Your task to perform on an android device: turn on location history Image 0: 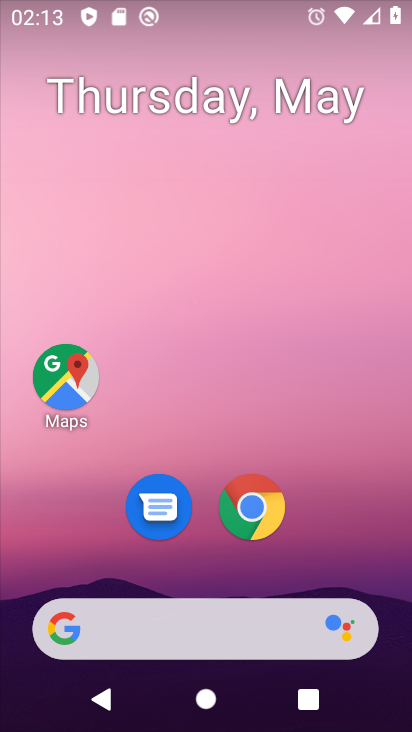
Step 0: drag from (308, 546) to (307, 132)
Your task to perform on an android device: turn on location history Image 1: 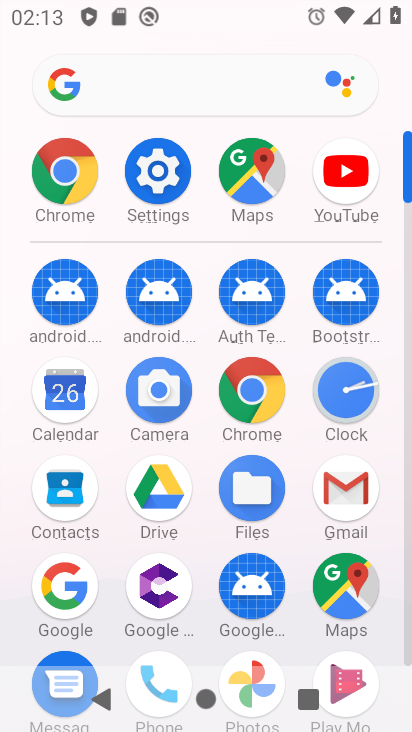
Step 1: click (139, 181)
Your task to perform on an android device: turn on location history Image 2: 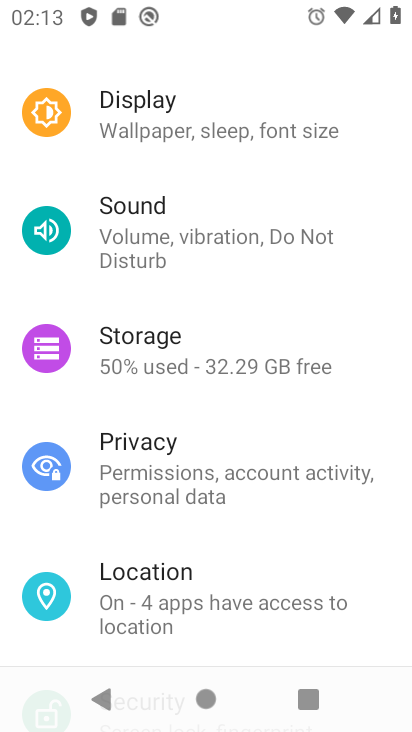
Step 2: click (222, 569)
Your task to perform on an android device: turn on location history Image 3: 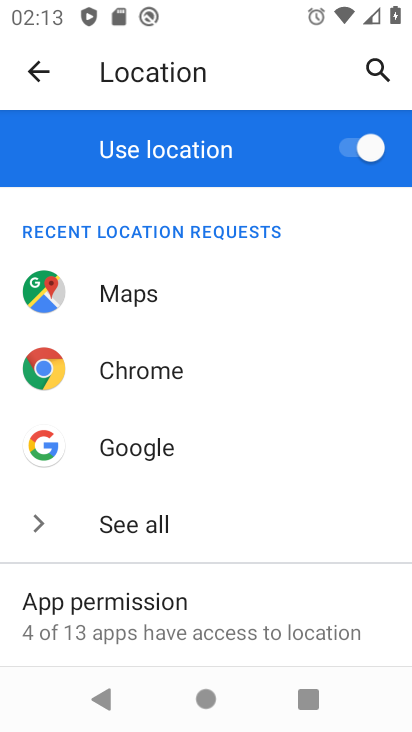
Step 3: task complete